Your task to perform on an android device: turn off priority inbox in the gmail app Image 0: 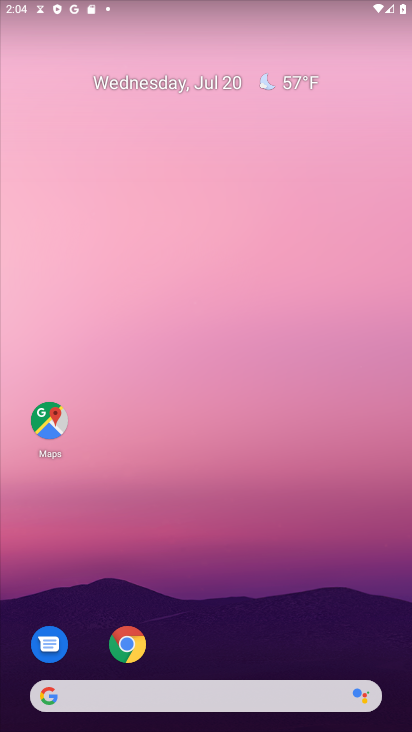
Step 0: press home button
Your task to perform on an android device: turn off priority inbox in the gmail app Image 1: 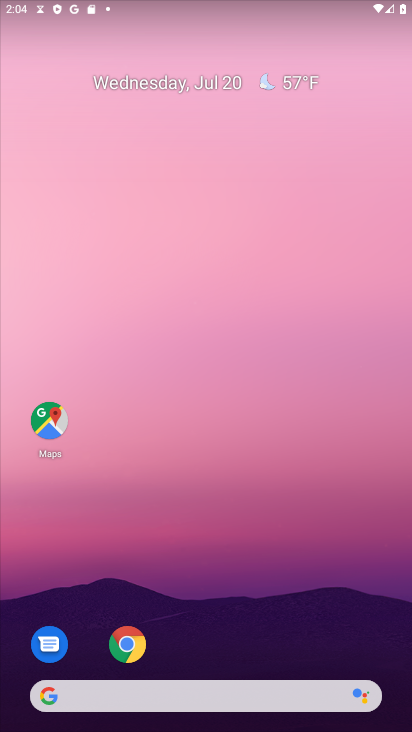
Step 1: drag from (256, 617) to (258, 245)
Your task to perform on an android device: turn off priority inbox in the gmail app Image 2: 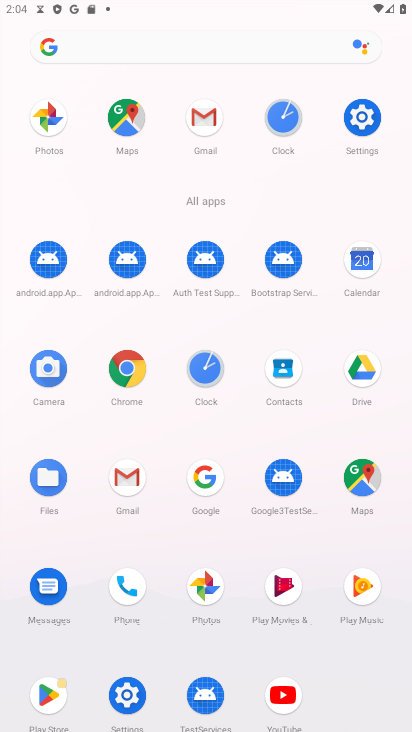
Step 2: click (188, 115)
Your task to perform on an android device: turn off priority inbox in the gmail app Image 3: 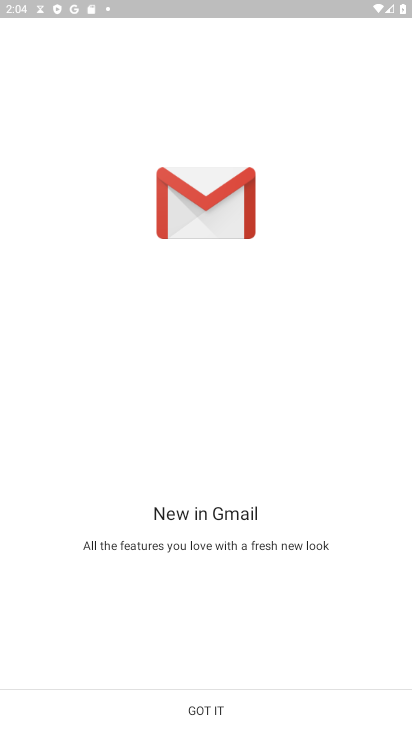
Step 3: click (144, 706)
Your task to perform on an android device: turn off priority inbox in the gmail app Image 4: 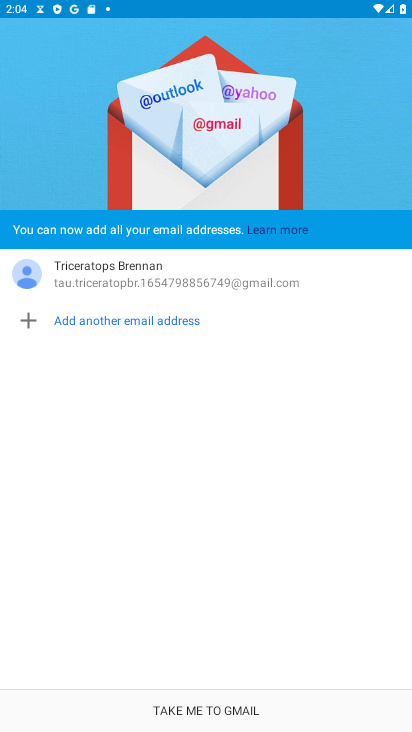
Step 4: click (118, 720)
Your task to perform on an android device: turn off priority inbox in the gmail app Image 5: 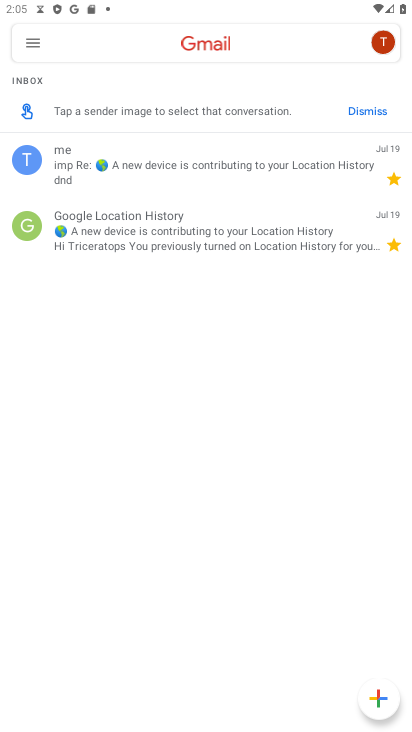
Step 5: click (30, 43)
Your task to perform on an android device: turn off priority inbox in the gmail app Image 6: 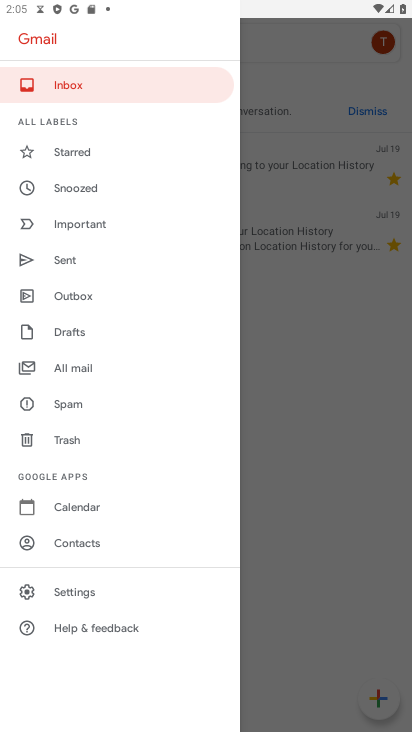
Step 6: click (56, 589)
Your task to perform on an android device: turn off priority inbox in the gmail app Image 7: 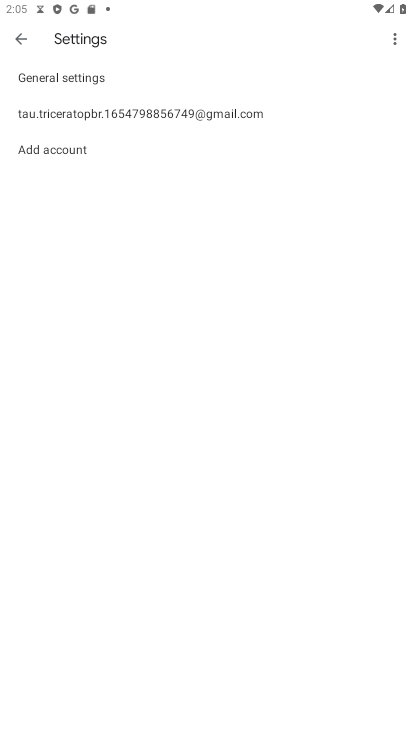
Step 7: click (100, 109)
Your task to perform on an android device: turn off priority inbox in the gmail app Image 8: 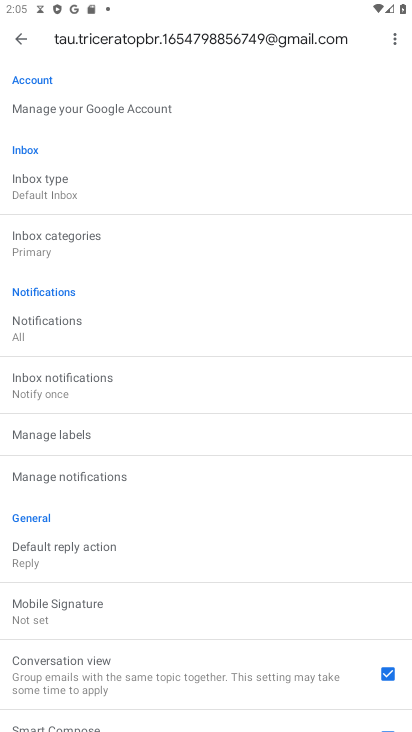
Step 8: click (35, 198)
Your task to perform on an android device: turn off priority inbox in the gmail app Image 9: 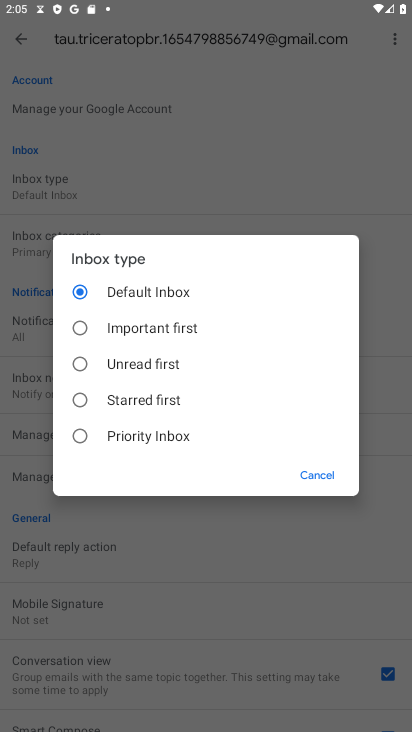
Step 9: task complete